Your task to perform on an android device: all mails in gmail Image 0: 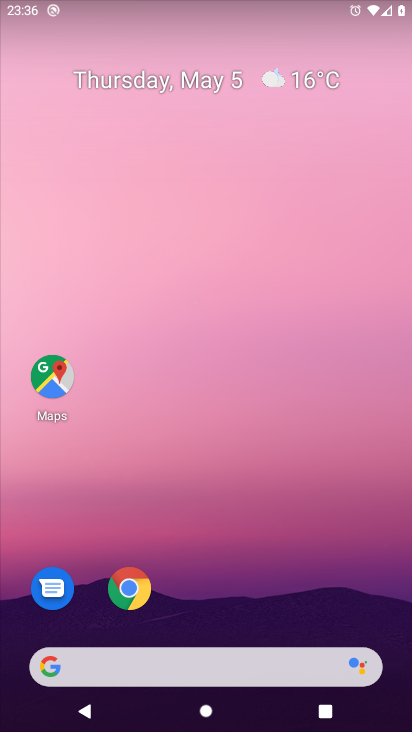
Step 0: drag from (263, 626) to (156, 100)
Your task to perform on an android device: all mails in gmail Image 1: 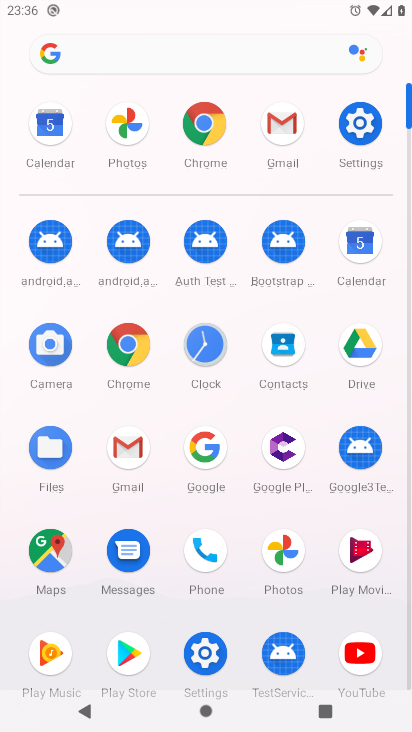
Step 1: click (296, 119)
Your task to perform on an android device: all mails in gmail Image 2: 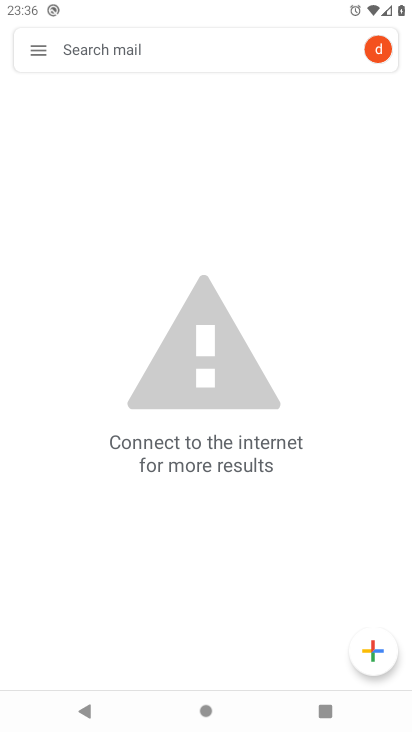
Step 2: click (50, 51)
Your task to perform on an android device: all mails in gmail Image 3: 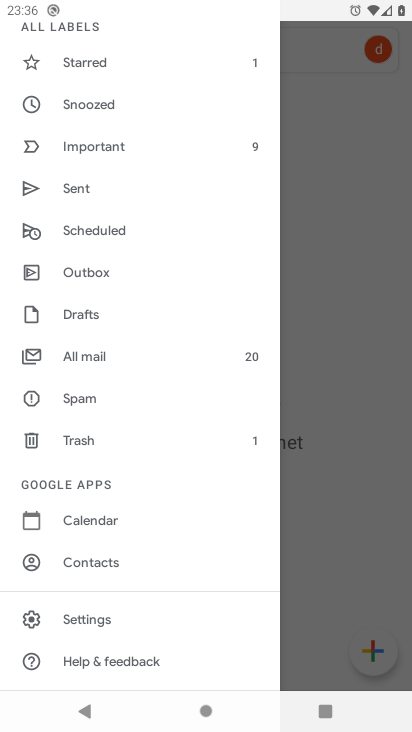
Step 3: click (167, 362)
Your task to perform on an android device: all mails in gmail Image 4: 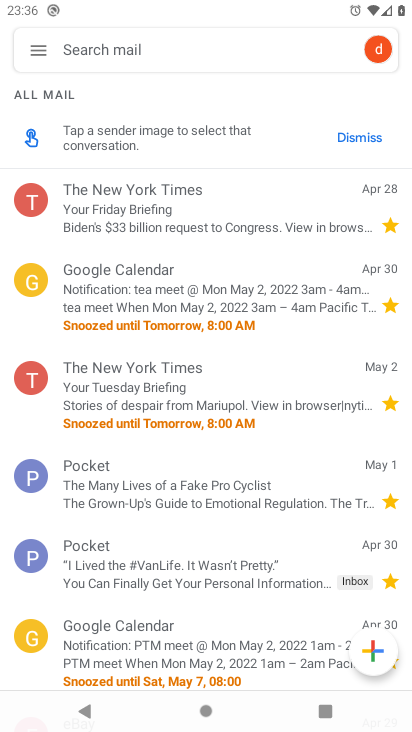
Step 4: task complete